Your task to perform on an android device: turn on sleep mode Image 0: 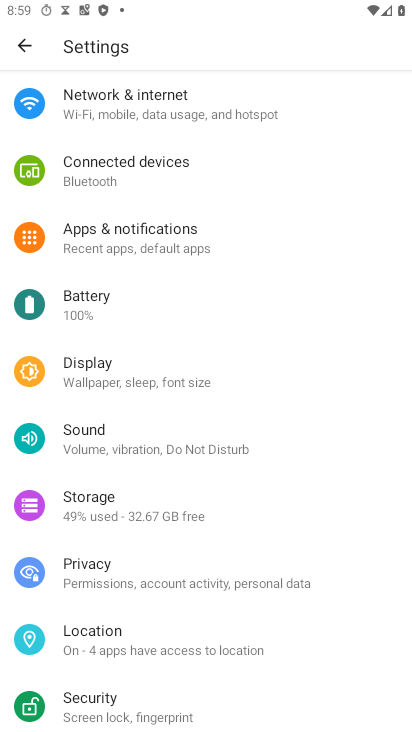
Step 0: click (108, 363)
Your task to perform on an android device: turn on sleep mode Image 1: 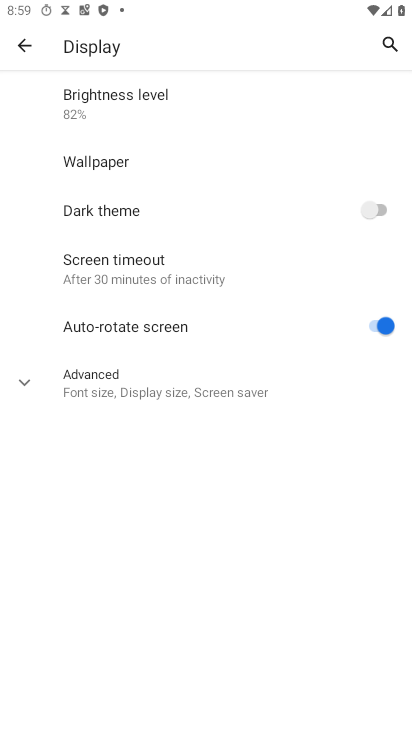
Step 1: click (23, 379)
Your task to perform on an android device: turn on sleep mode Image 2: 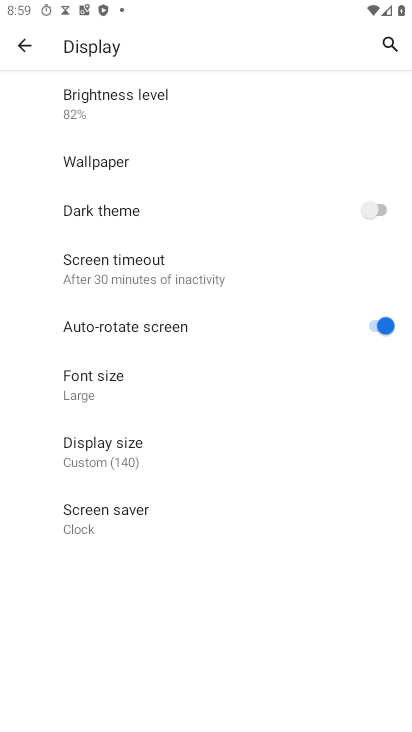
Step 2: task complete